Your task to perform on an android device: Open the calendar app, open the side menu, and click the "Day" option Image 0: 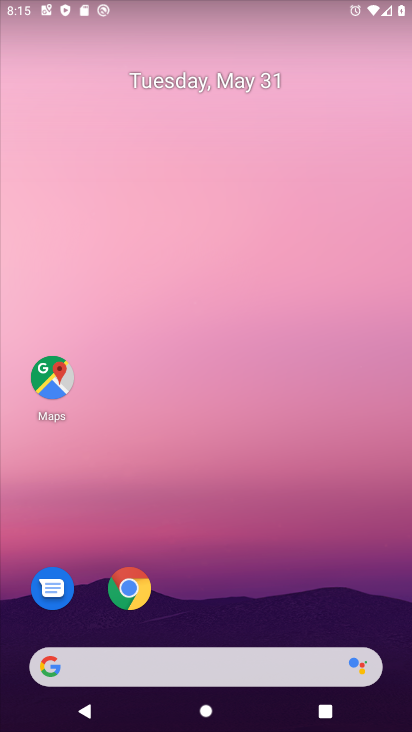
Step 0: drag from (218, 606) to (237, 71)
Your task to perform on an android device: Open the calendar app, open the side menu, and click the "Day" option Image 1: 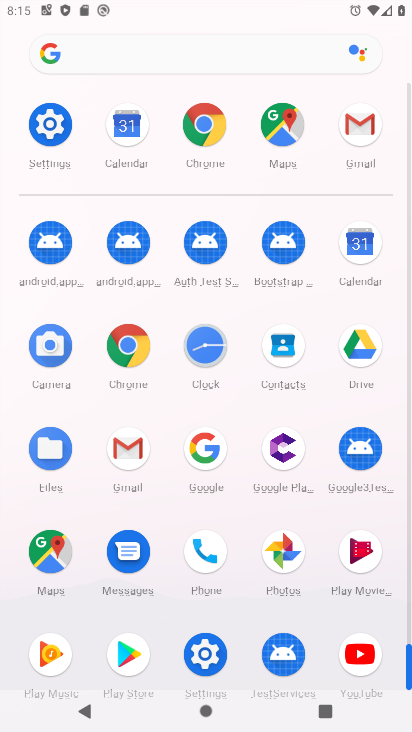
Step 1: click (348, 242)
Your task to perform on an android device: Open the calendar app, open the side menu, and click the "Day" option Image 2: 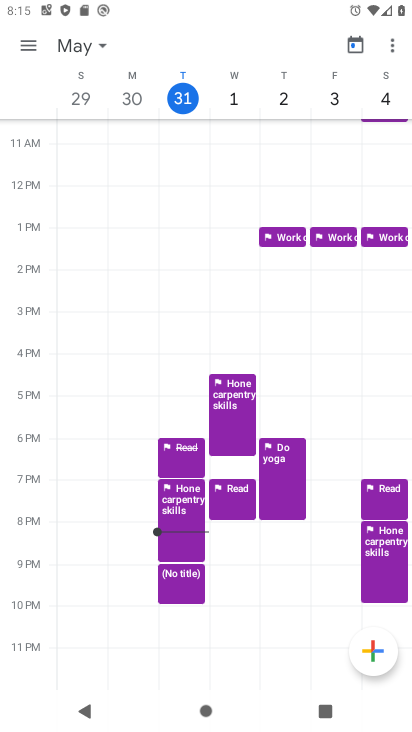
Step 2: click (20, 39)
Your task to perform on an android device: Open the calendar app, open the side menu, and click the "Day" option Image 3: 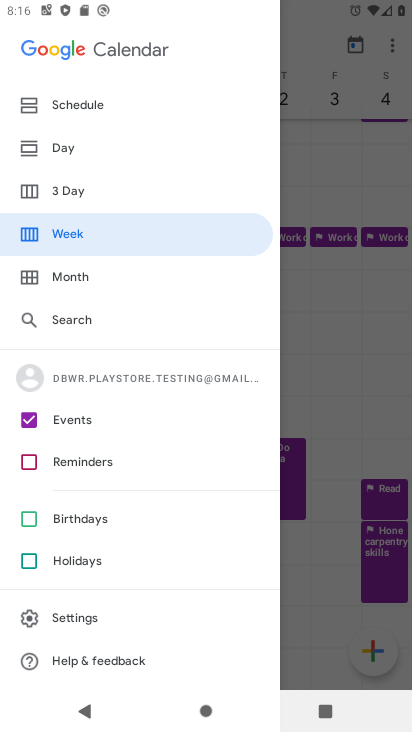
Step 3: click (89, 150)
Your task to perform on an android device: Open the calendar app, open the side menu, and click the "Day" option Image 4: 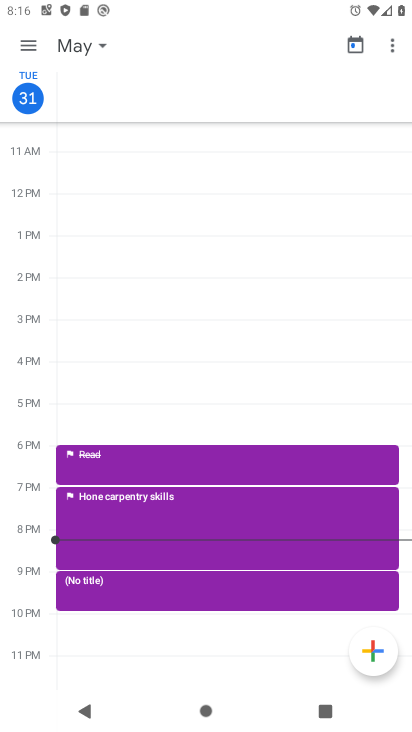
Step 4: task complete